Your task to perform on an android device: Find coffee shops on Maps Image 0: 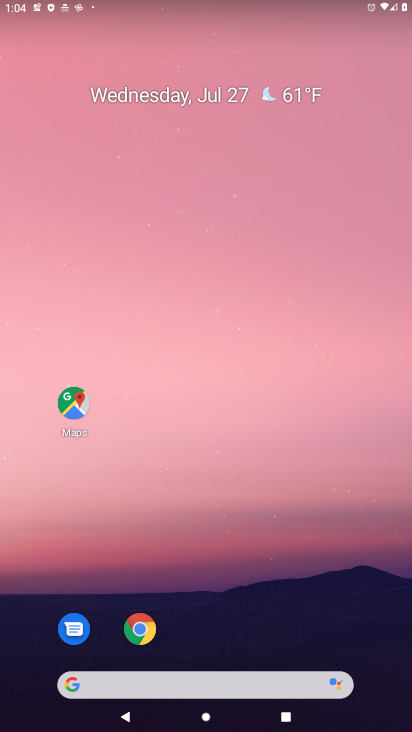
Step 0: click (63, 409)
Your task to perform on an android device: Find coffee shops on Maps Image 1: 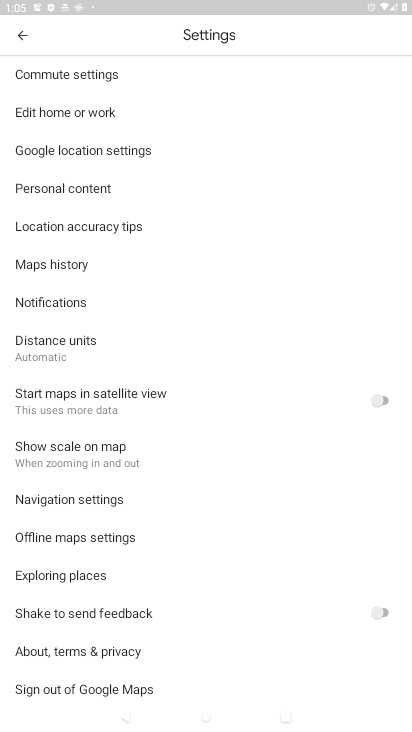
Step 1: click (21, 38)
Your task to perform on an android device: Find coffee shops on Maps Image 2: 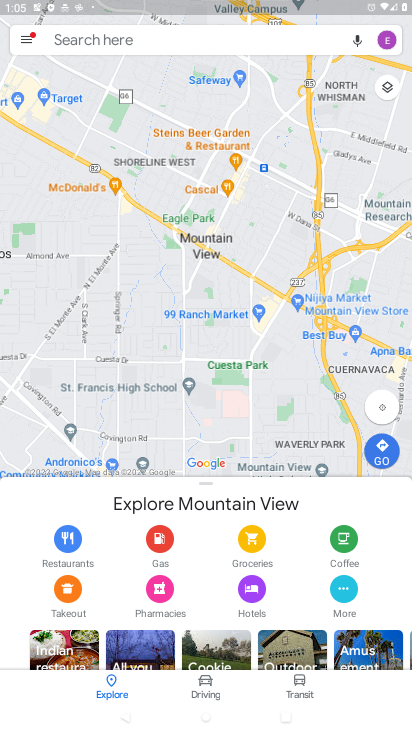
Step 2: click (107, 34)
Your task to perform on an android device: Find coffee shops on Maps Image 3: 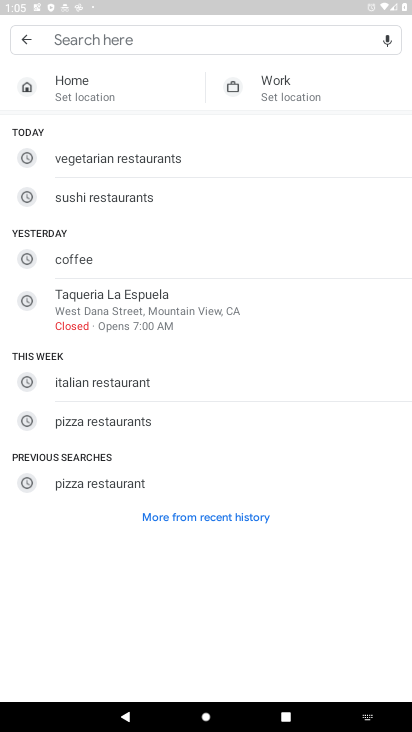
Step 3: click (147, 256)
Your task to perform on an android device: Find coffee shops on Maps Image 4: 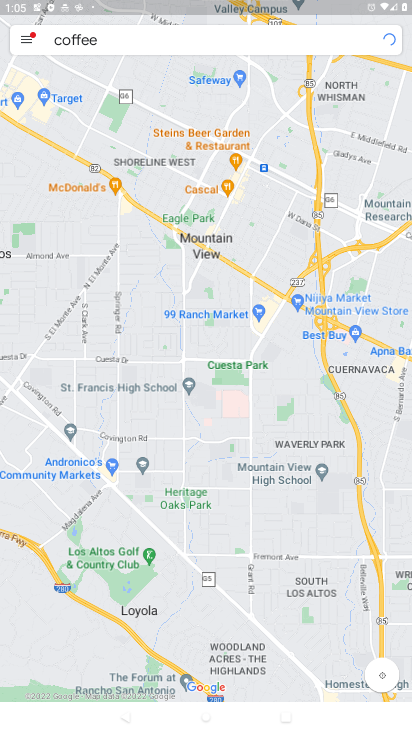
Step 4: task complete